Your task to perform on an android device: toggle notifications settings in the gmail app Image 0: 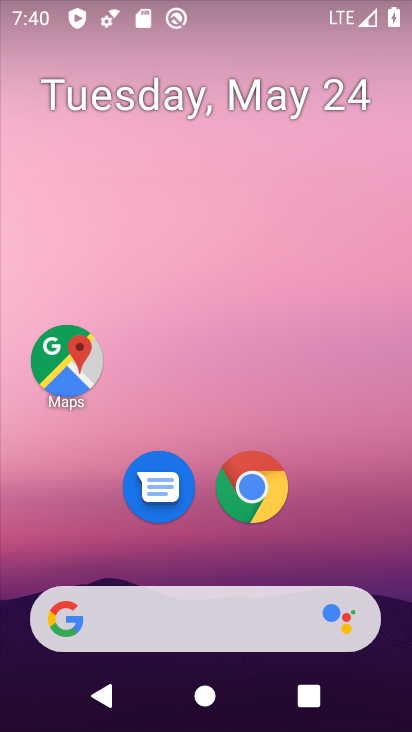
Step 0: drag from (314, 547) to (160, 72)
Your task to perform on an android device: toggle notifications settings in the gmail app Image 1: 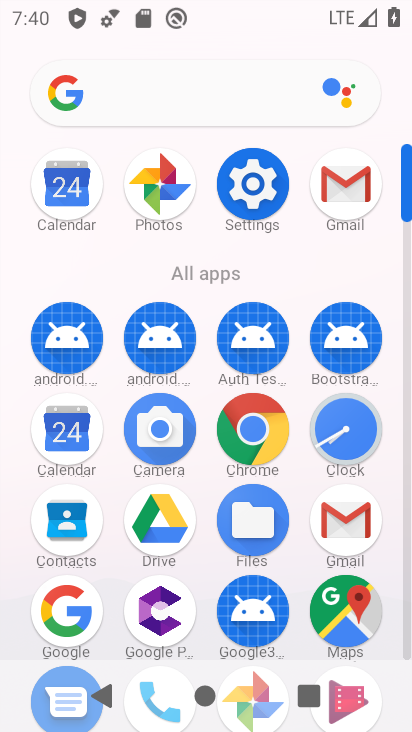
Step 1: click (348, 499)
Your task to perform on an android device: toggle notifications settings in the gmail app Image 2: 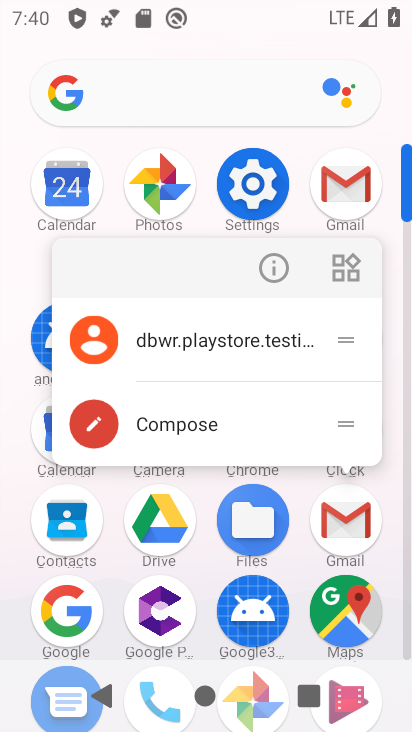
Step 2: click (268, 266)
Your task to perform on an android device: toggle notifications settings in the gmail app Image 3: 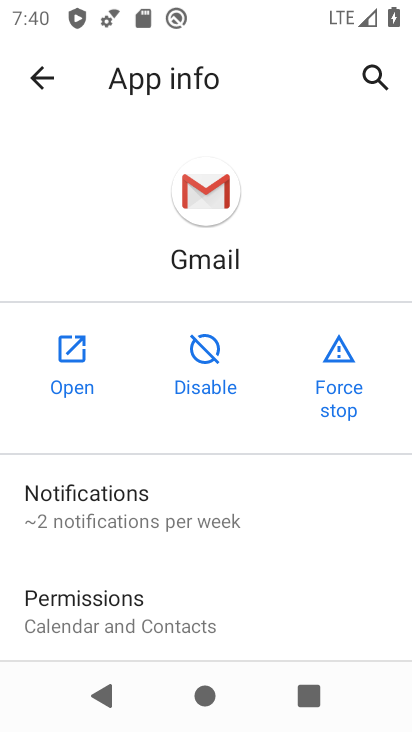
Step 3: click (153, 509)
Your task to perform on an android device: toggle notifications settings in the gmail app Image 4: 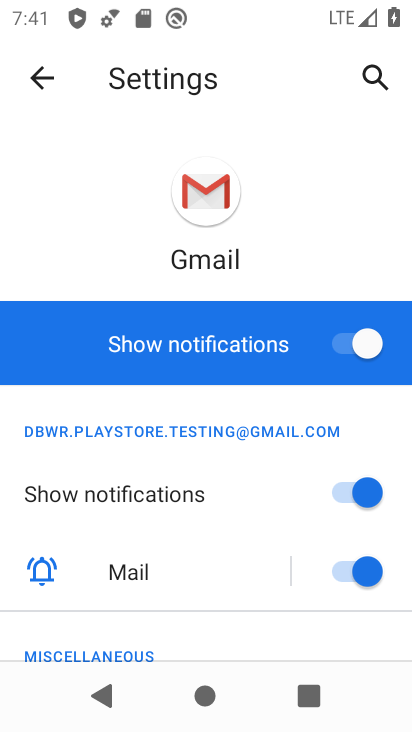
Step 4: click (333, 348)
Your task to perform on an android device: toggle notifications settings in the gmail app Image 5: 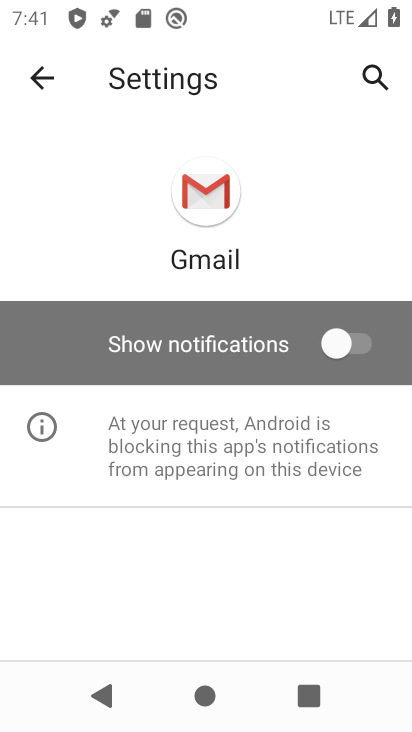
Step 5: task complete